Your task to perform on an android device: Open Reddit.com Image 0: 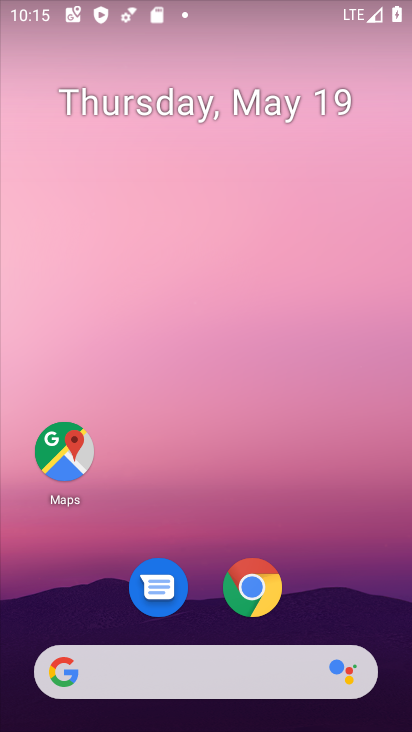
Step 0: click (174, 665)
Your task to perform on an android device: Open Reddit.com Image 1: 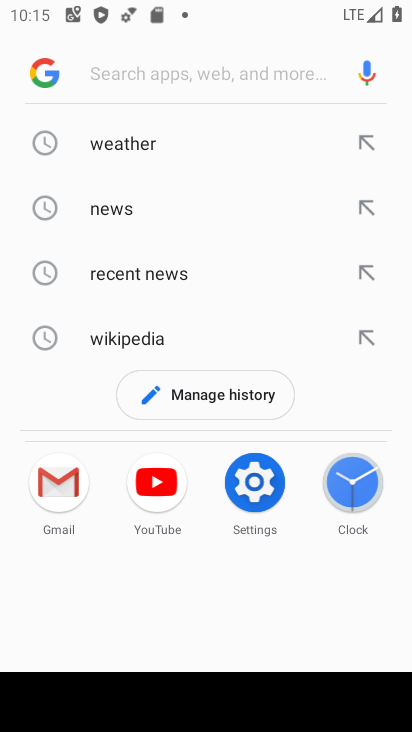
Step 1: type "reddit.com"
Your task to perform on an android device: Open Reddit.com Image 2: 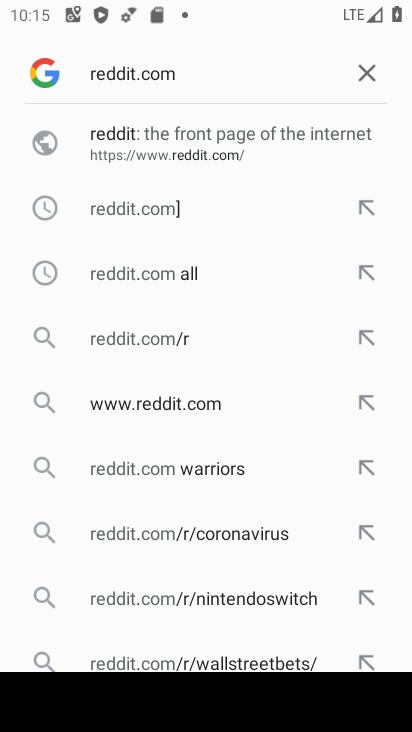
Step 2: click (259, 141)
Your task to perform on an android device: Open Reddit.com Image 3: 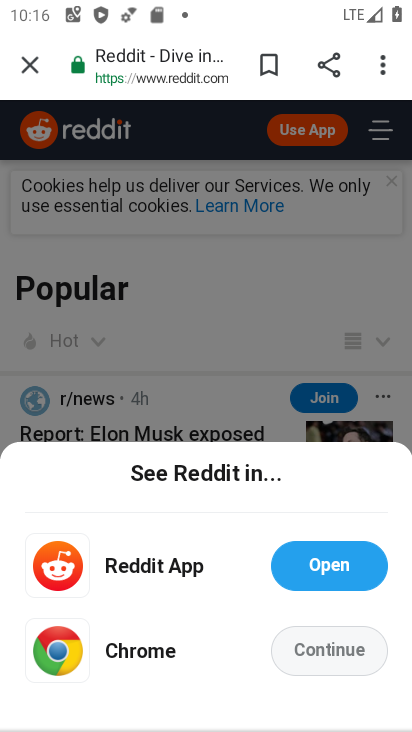
Step 3: drag from (216, 406) to (221, 90)
Your task to perform on an android device: Open Reddit.com Image 4: 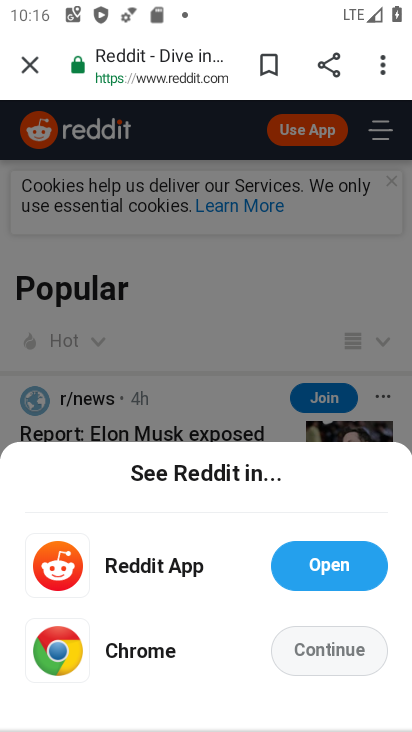
Step 4: click (343, 657)
Your task to perform on an android device: Open Reddit.com Image 5: 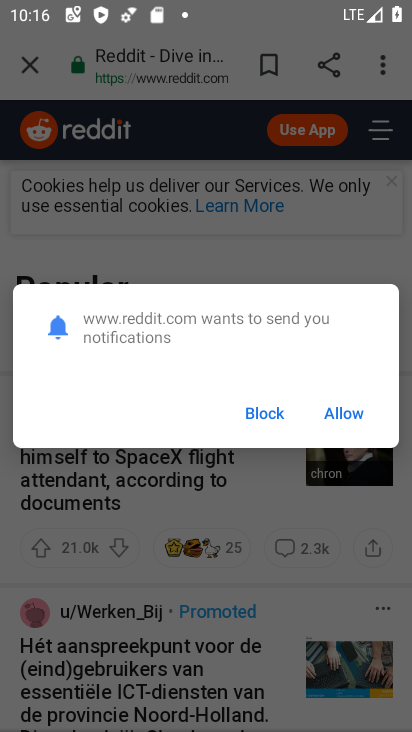
Step 5: task complete